Your task to perform on an android device: Open ESPN.com Image 0: 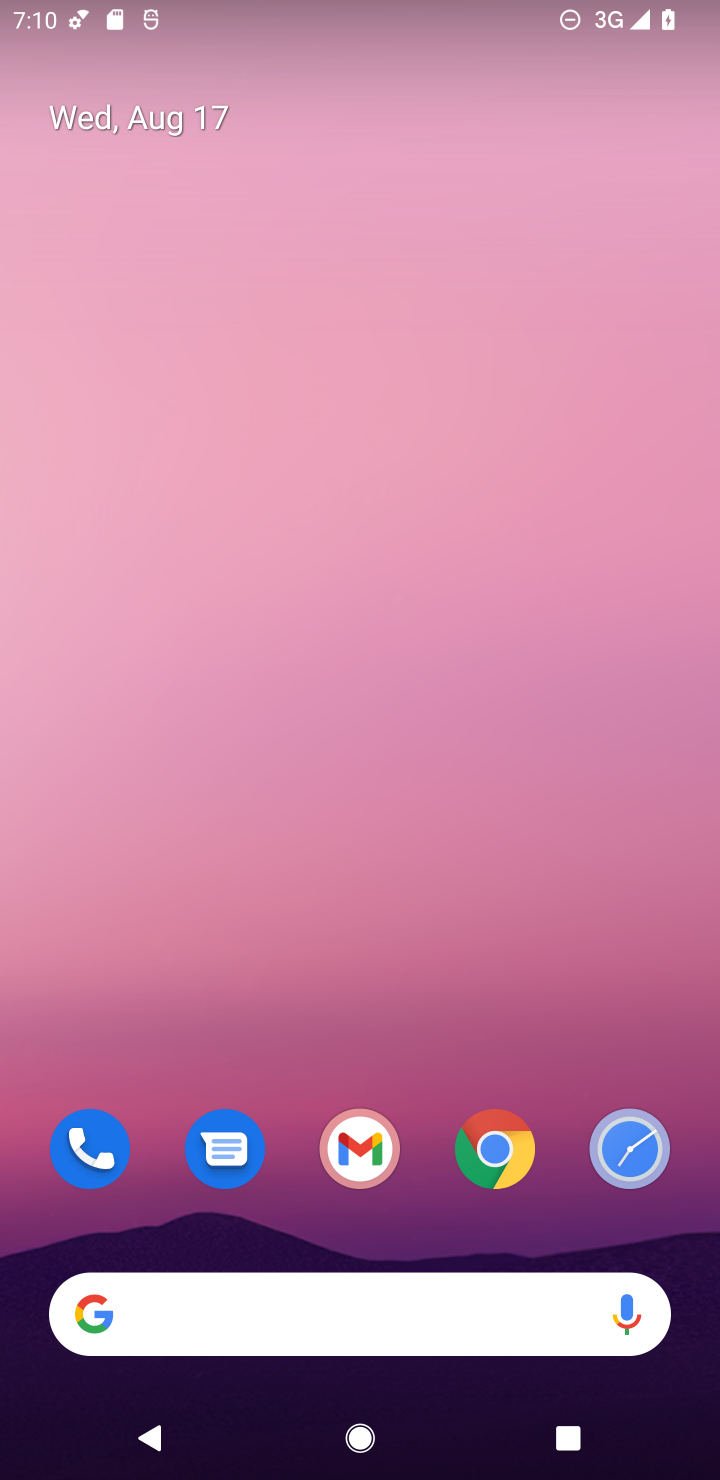
Step 0: click (500, 1148)
Your task to perform on an android device: Open ESPN.com Image 1: 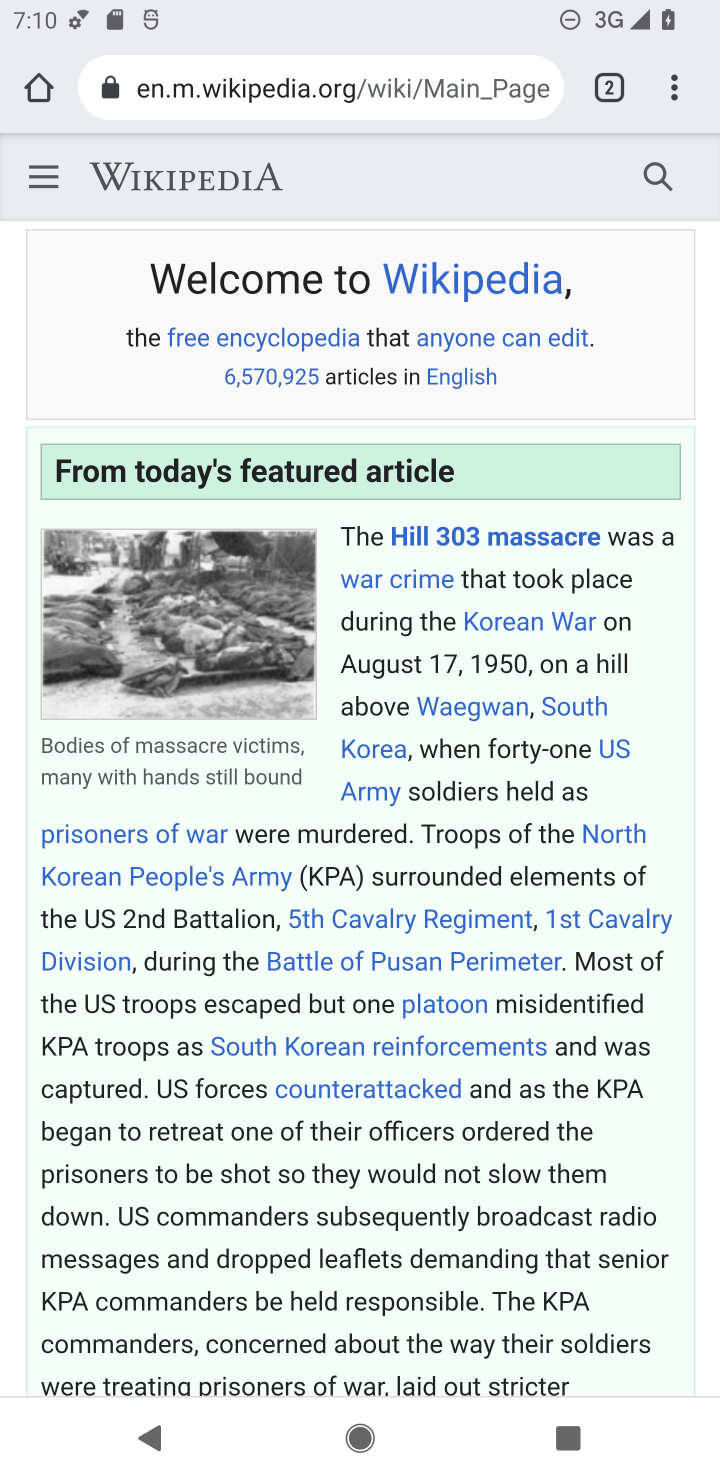
Step 1: click (672, 77)
Your task to perform on an android device: Open ESPN.com Image 2: 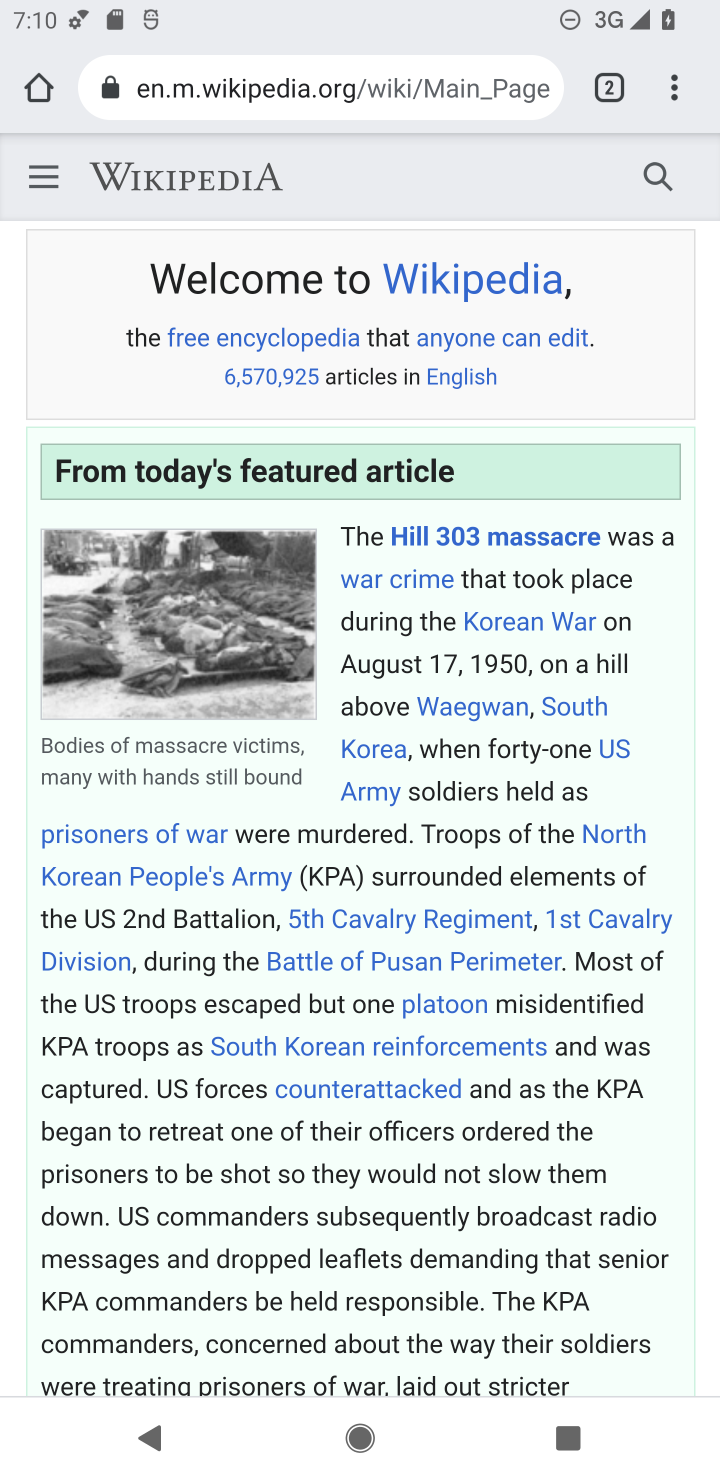
Step 2: click (656, 87)
Your task to perform on an android device: Open ESPN.com Image 3: 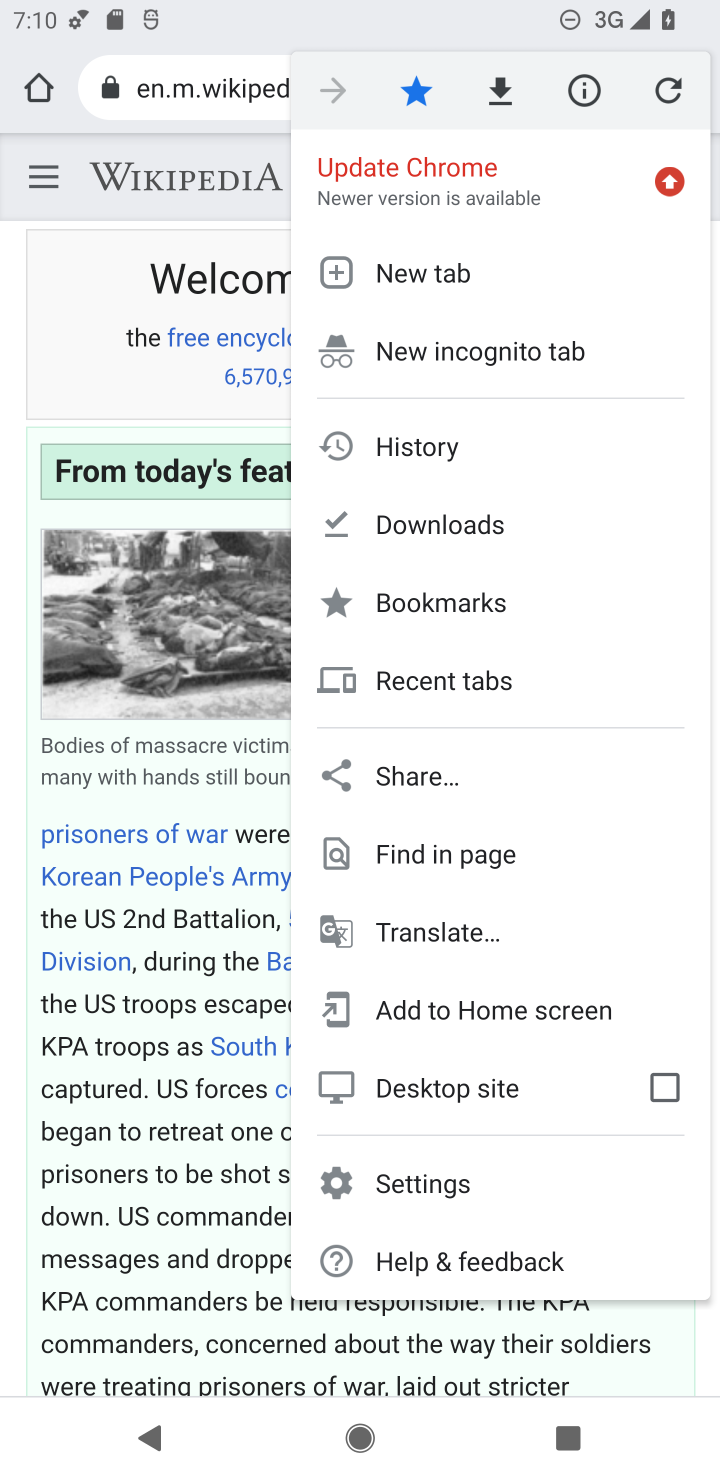
Step 3: click (465, 266)
Your task to perform on an android device: Open ESPN.com Image 4: 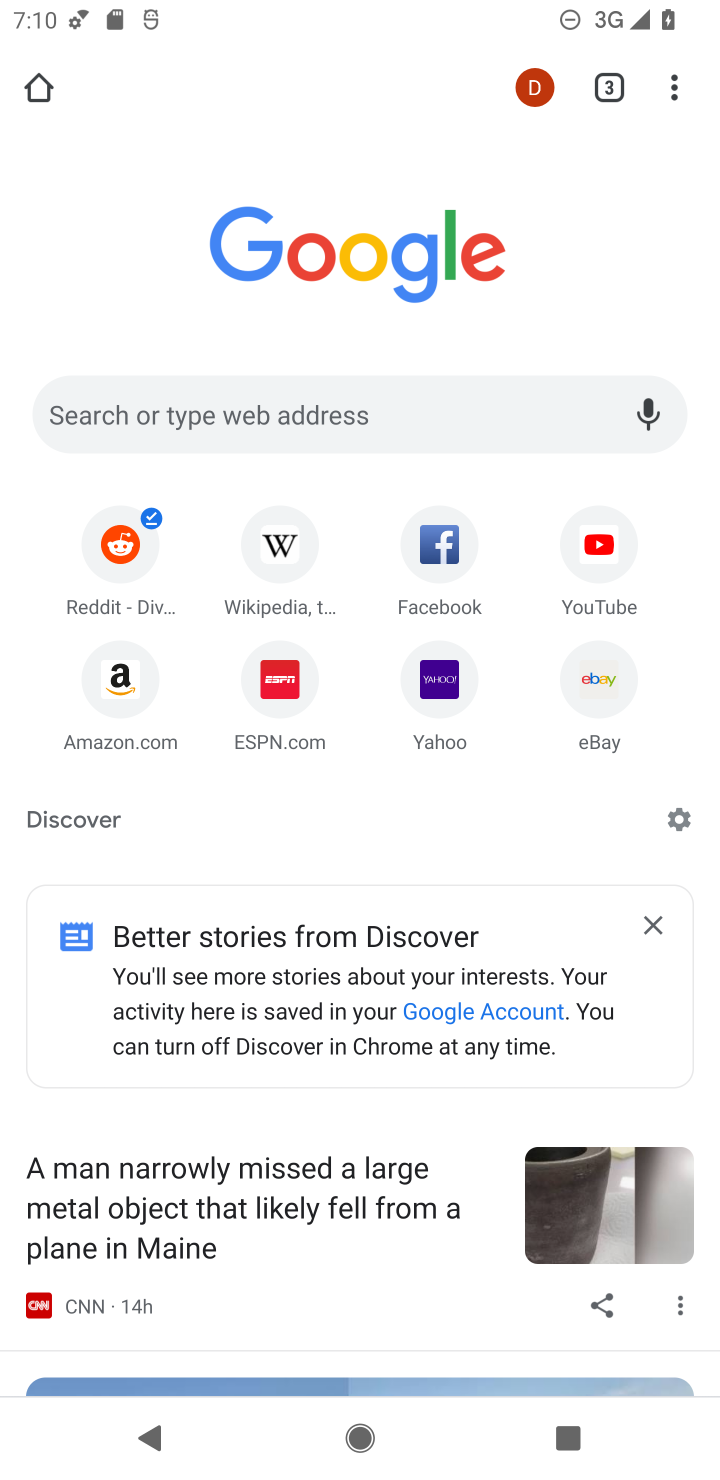
Step 4: click (287, 674)
Your task to perform on an android device: Open ESPN.com Image 5: 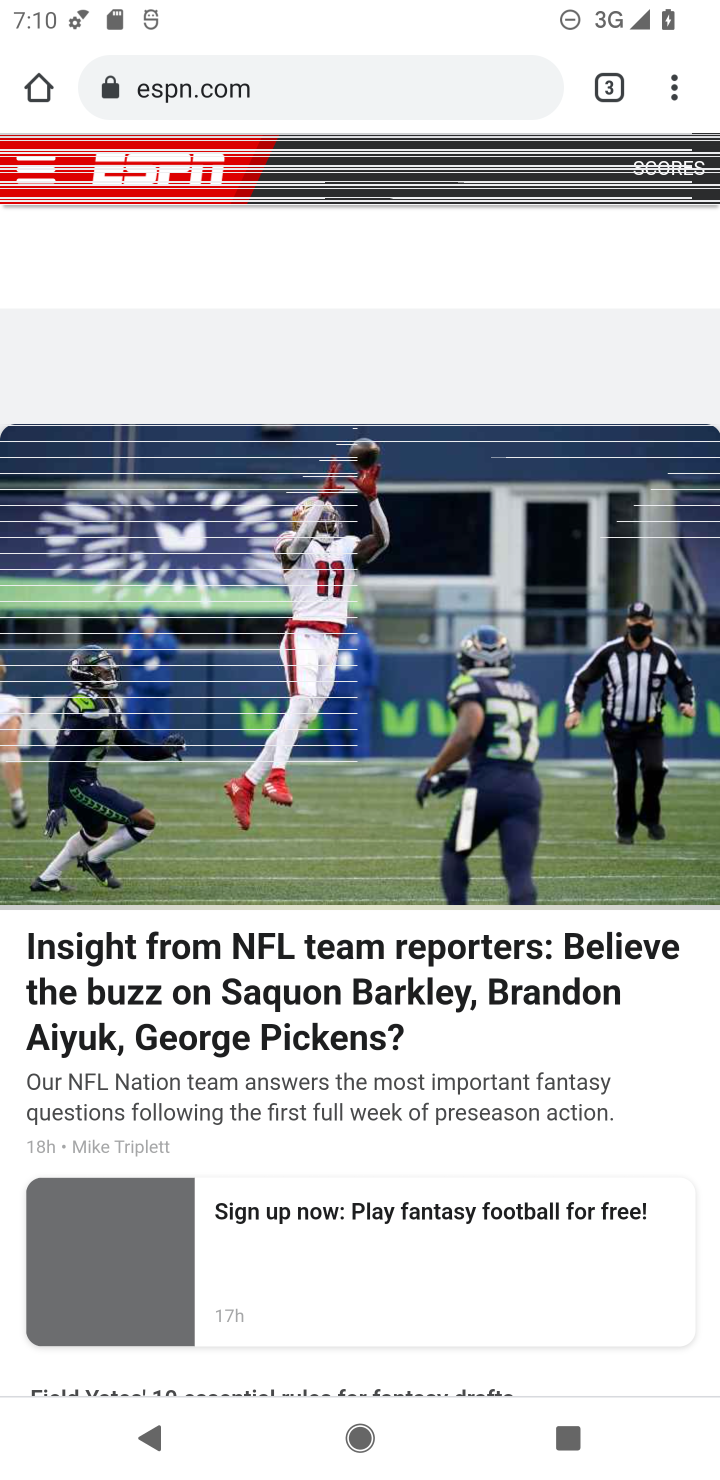
Step 5: task complete